Your task to perform on an android device: change the clock display to digital Image 0: 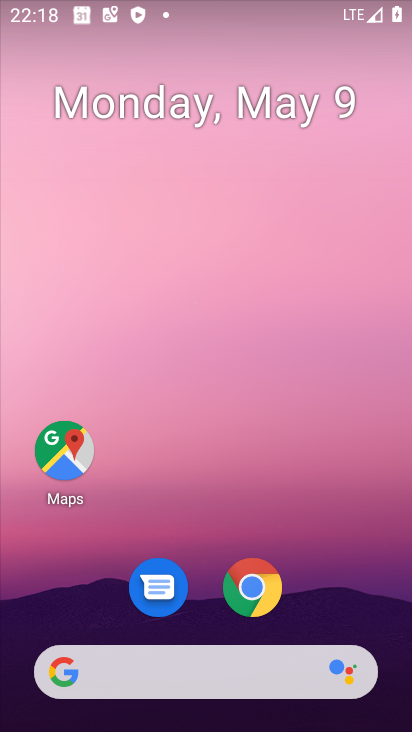
Step 0: drag from (224, 623) to (304, 6)
Your task to perform on an android device: change the clock display to digital Image 1: 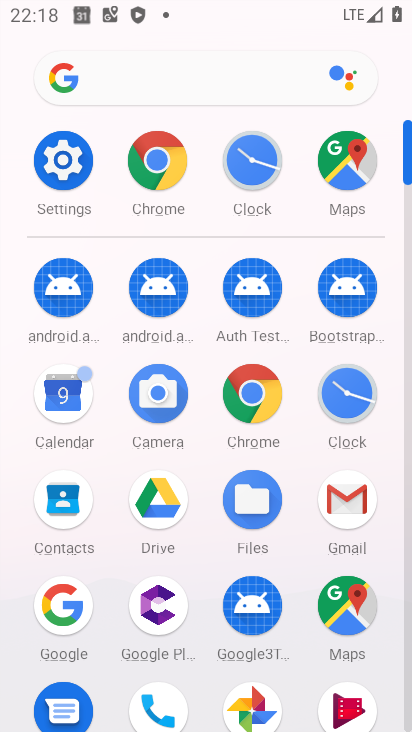
Step 1: click (235, 203)
Your task to perform on an android device: change the clock display to digital Image 2: 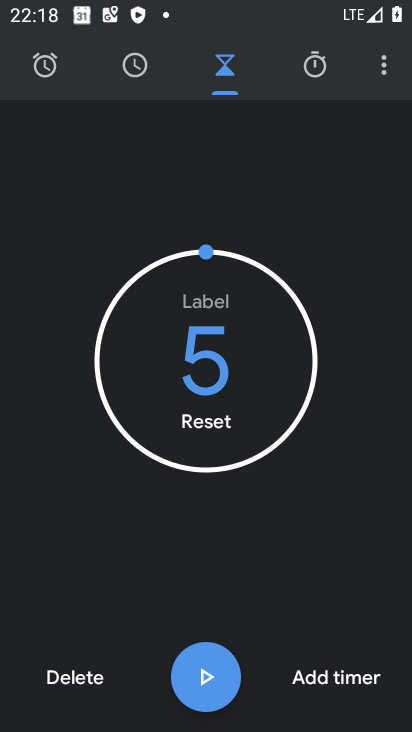
Step 2: click (375, 47)
Your task to perform on an android device: change the clock display to digital Image 3: 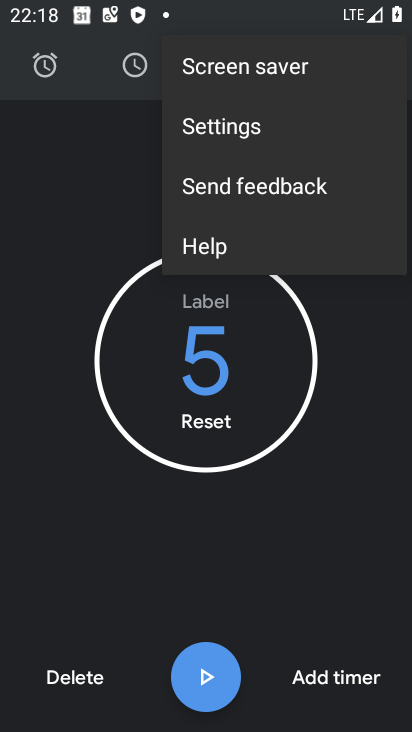
Step 3: click (205, 140)
Your task to perform on an android device: change the clock display to digital Image 4: 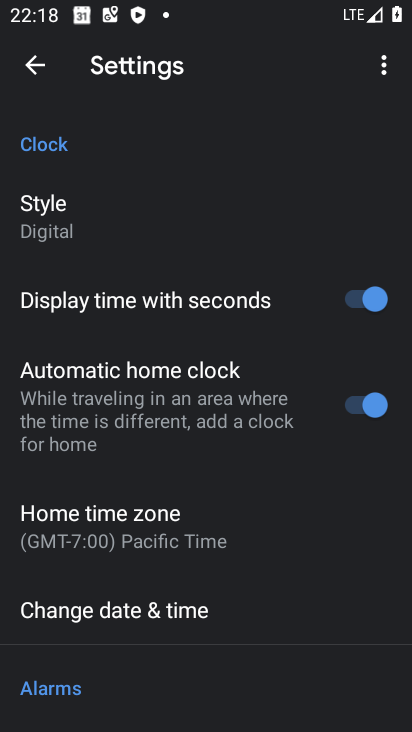
Step 4: task complete